Your task to perform on an android device: turn on translation in the chrome app Image 0: 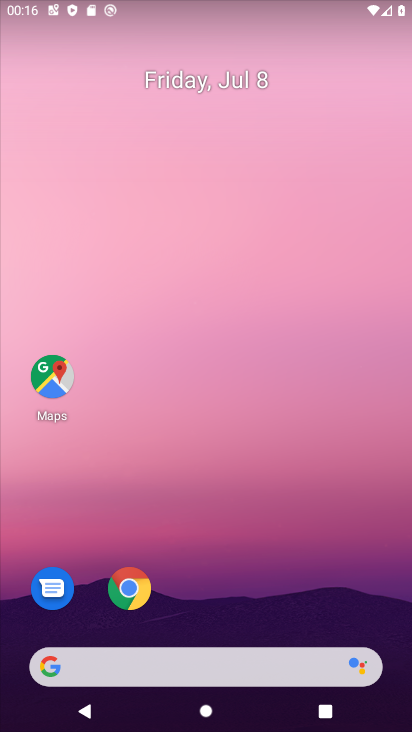
Step 0: click (290, 160)
Your task to perform on an android device: turn on translation in the chrome app Image 1: 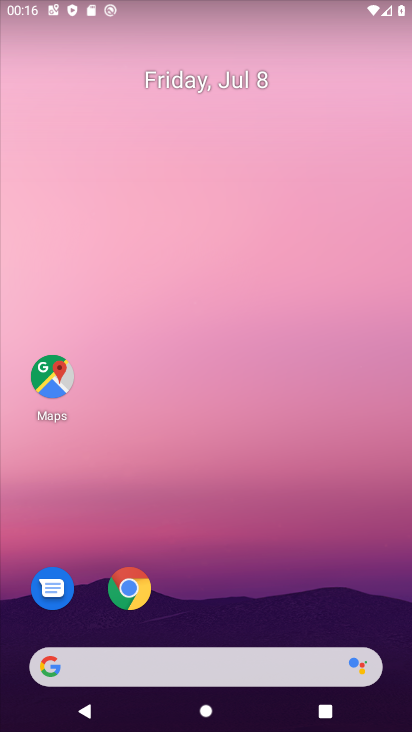
Step 1: drag from (210, 622) to (201, 146)
Your task to perform on an android device: turn on translation in the chrome app Image 2: 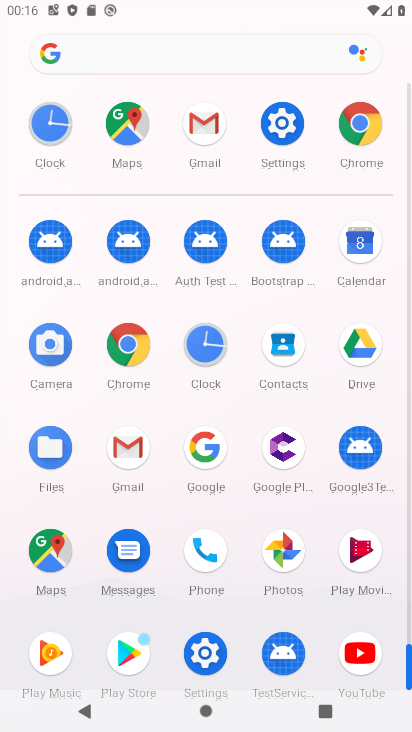
Step 2: click (363, 120)
Your task to perform on an android device: turn on translation in the chrome app Image 3: 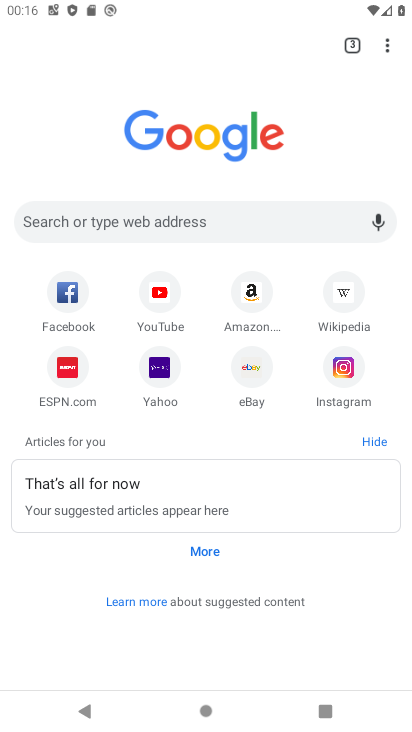
Step 3: drag from (261, 514) to (331, 102)
Your task to perform on an android device: turn on translation in the chrome app Image 4: 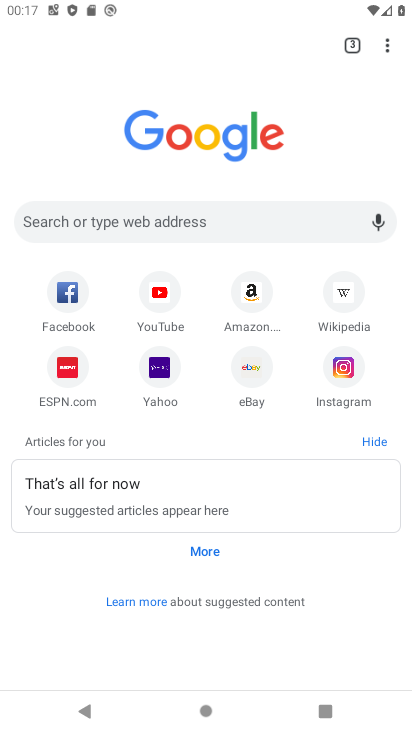
Step 4: click (384, 35)
Your task to perform on an android device: turn on translation in the chrome app Image 5: 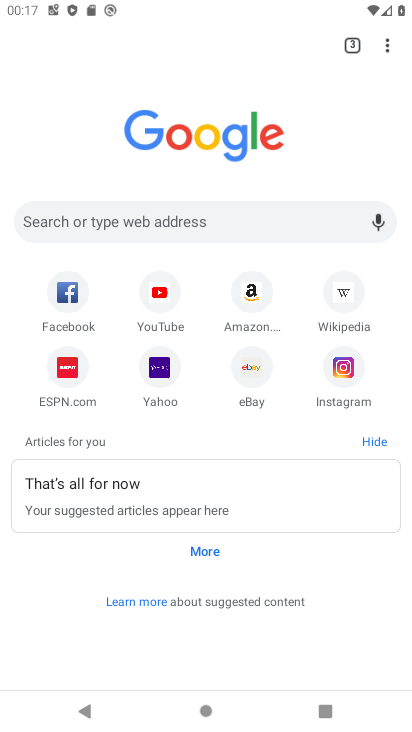
Step 5: click (386, 42)
Your task to perform on an android device: turn on translation in the chrome app Image 6: 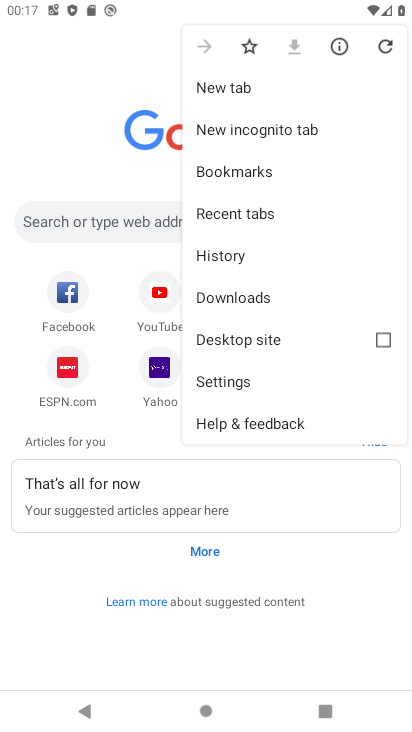
Step 6: click (227, 379)
Your task to perform on an android device: turn on translation in the chrome app Image 7: 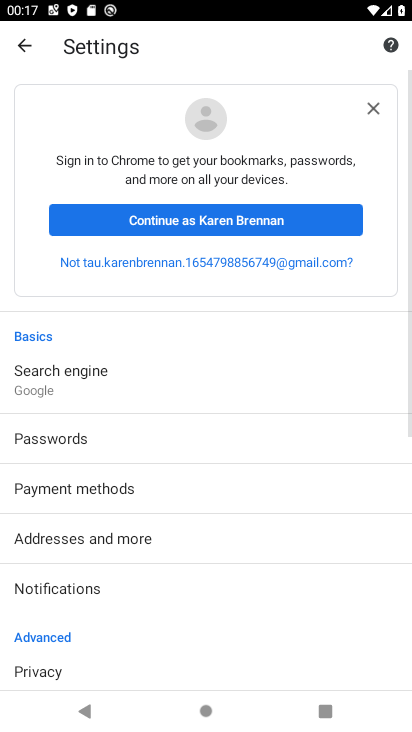
Step 7: drag from (142, 594) to (320, 190)
Your task to perform on an android device: turn on translation in the chrome app Image 8: 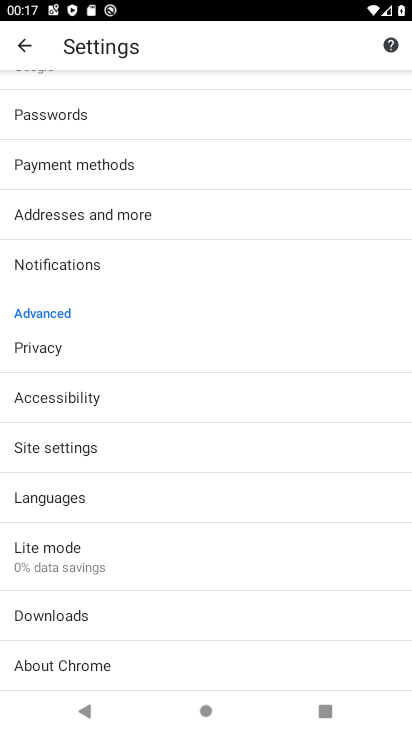
Step 8: click (66, 502)
Your task to perform on an android device: turn on translation in the chrome app Image 9: 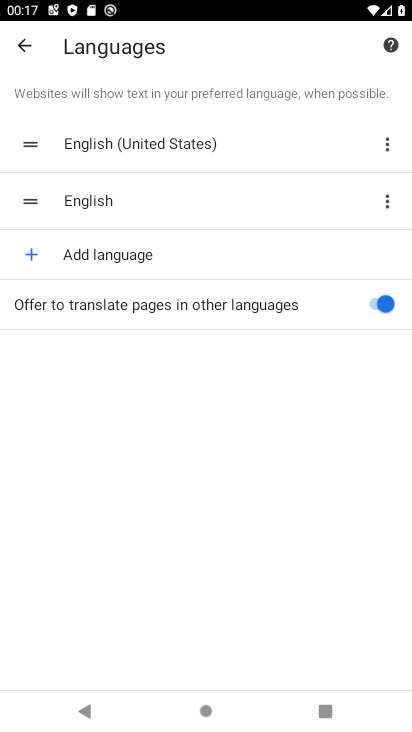
Step 9: task complete